Your task to perform on an android device: change your default location settings in chrome Image 0: 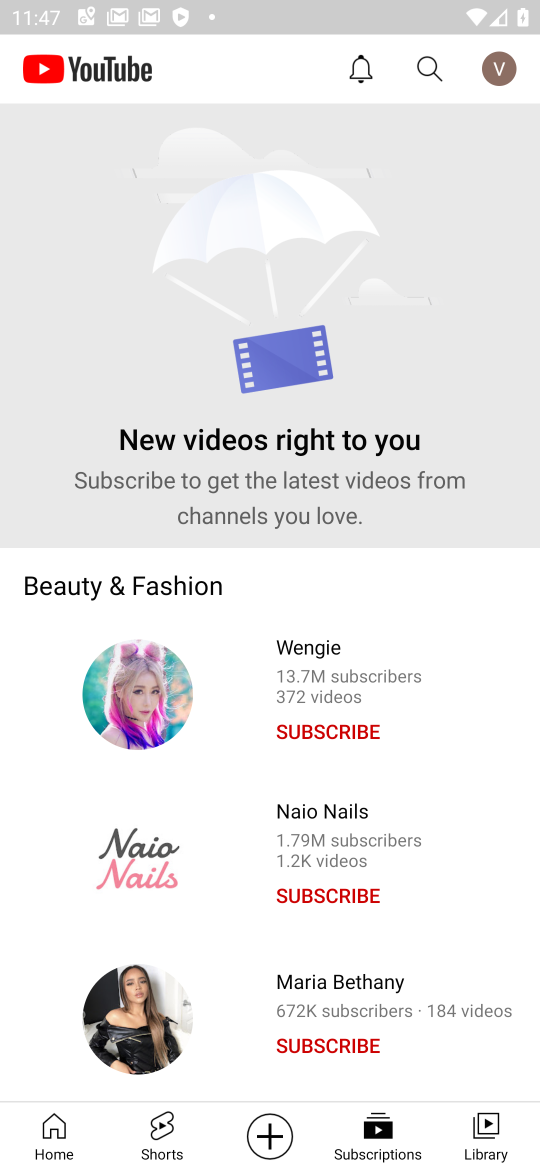
Step 0: press home button
Your task to perform on an android device: change your default location settings in chrome Image 1: 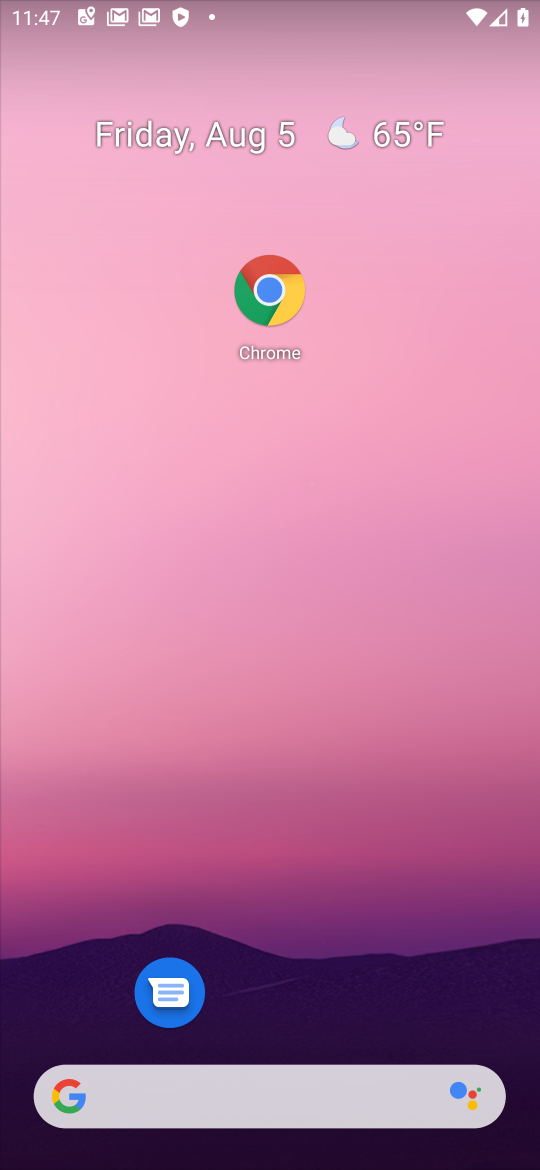
Step 1: drag from (322, 831) to (292, 8)
Your task to perform on an android device: change your default location settings in chrome Image 2: 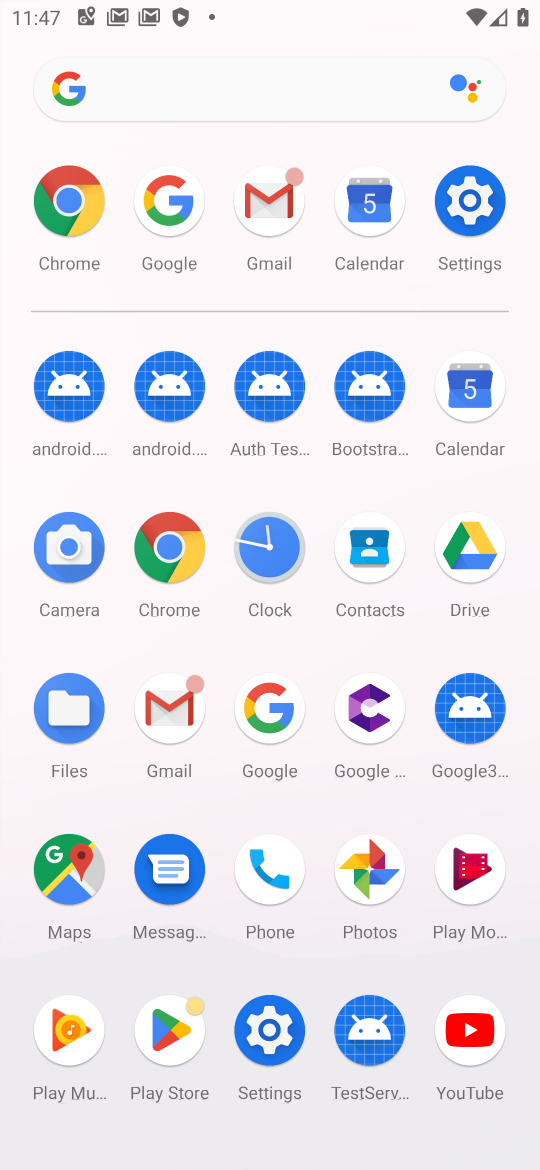
Step 2: click (65, 213)
Your task to perform on an android device: change your default location settings in chrome Image 3: 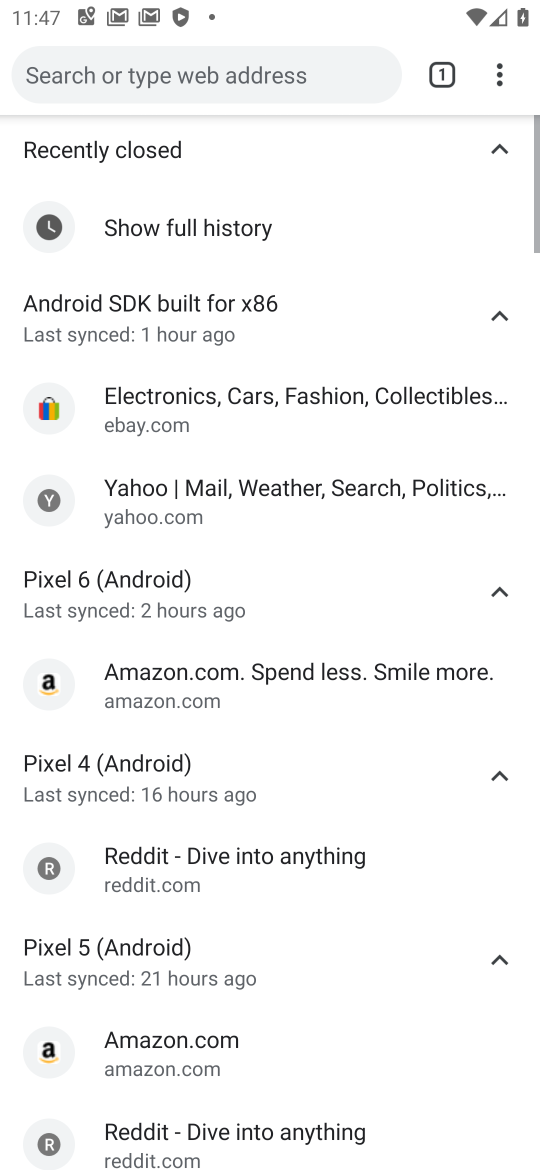
Step 3: drag from (504, 83) to (227, 653)
Your task to perform on an android device: change your default location settings in chrome Image 4: 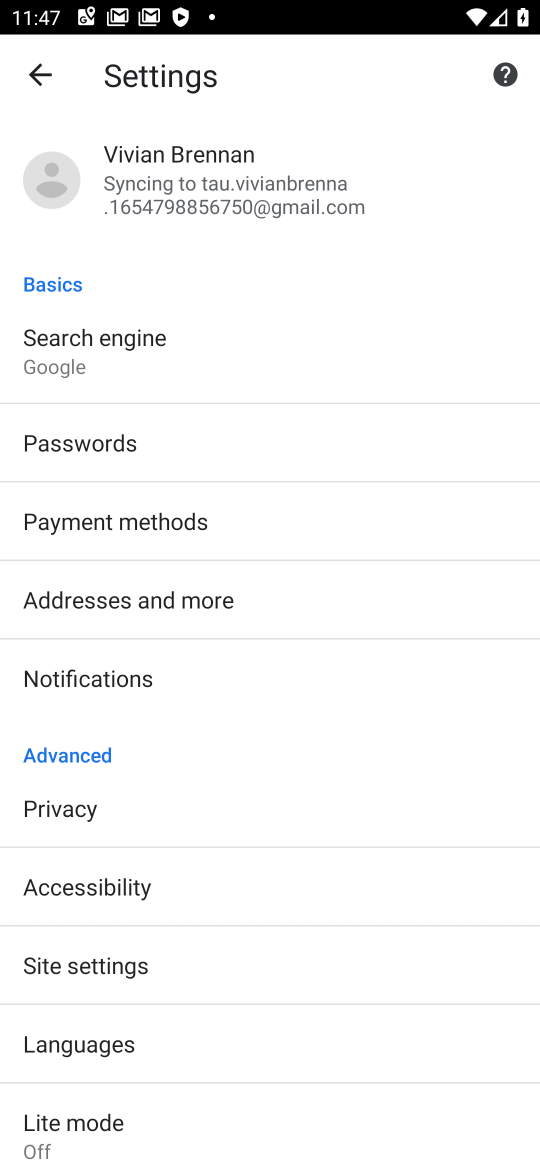
Step 4: click (61, 354)
Your task to perform on an android device: change your default location settings in chrome Image 5: 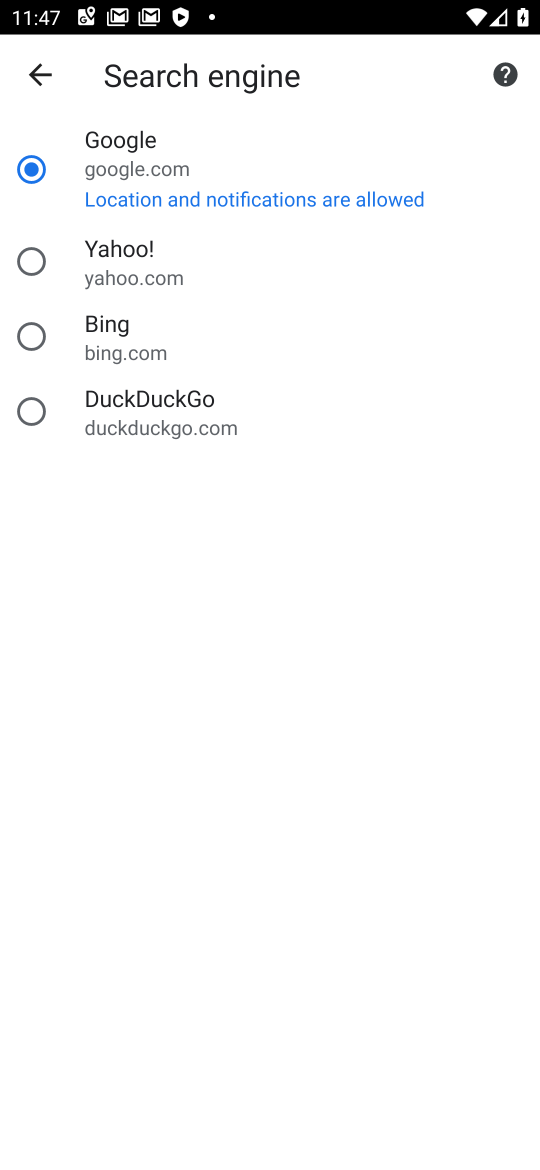
Step 5: task complete